Your task to perform on an android device: toggle notification dots Image 0: 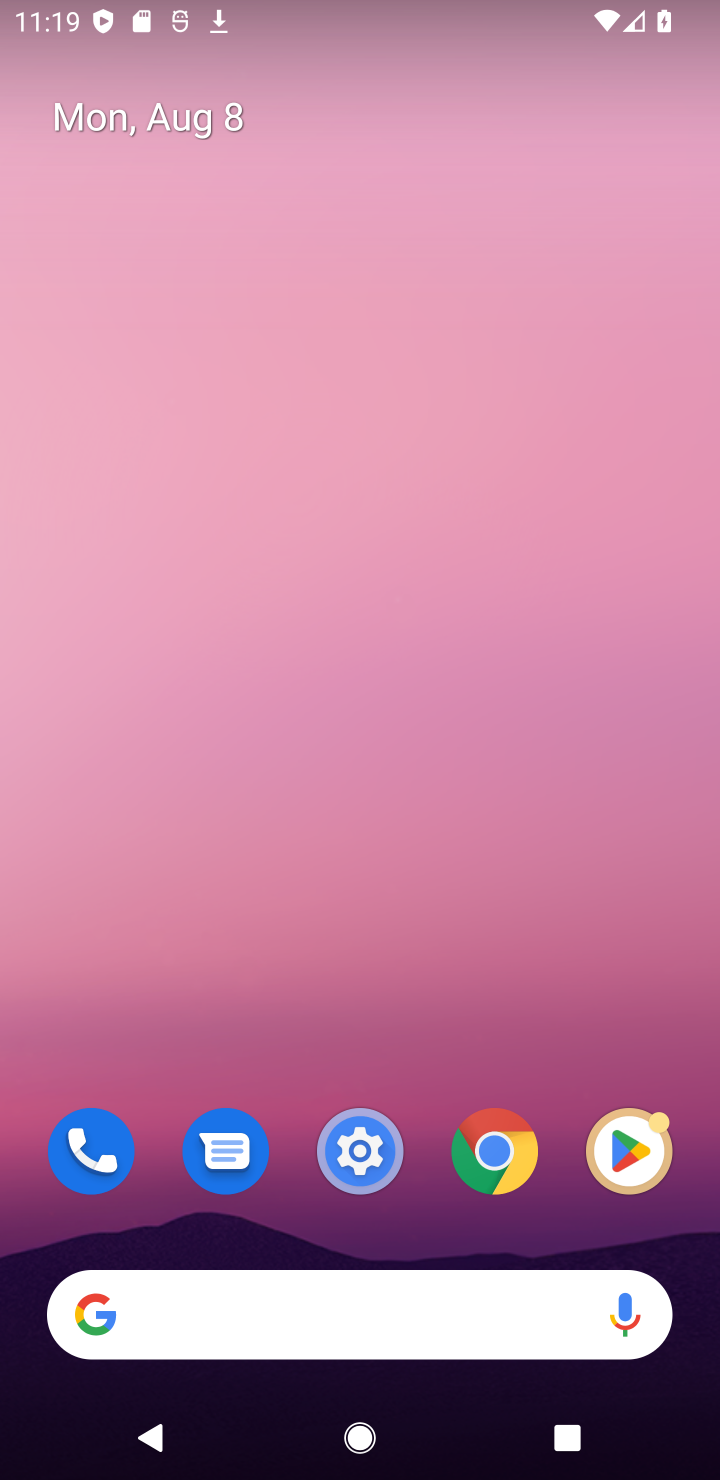
Step 0: click (379, 306)
Your task to perform on an android device: toggle notification dots Image 1: 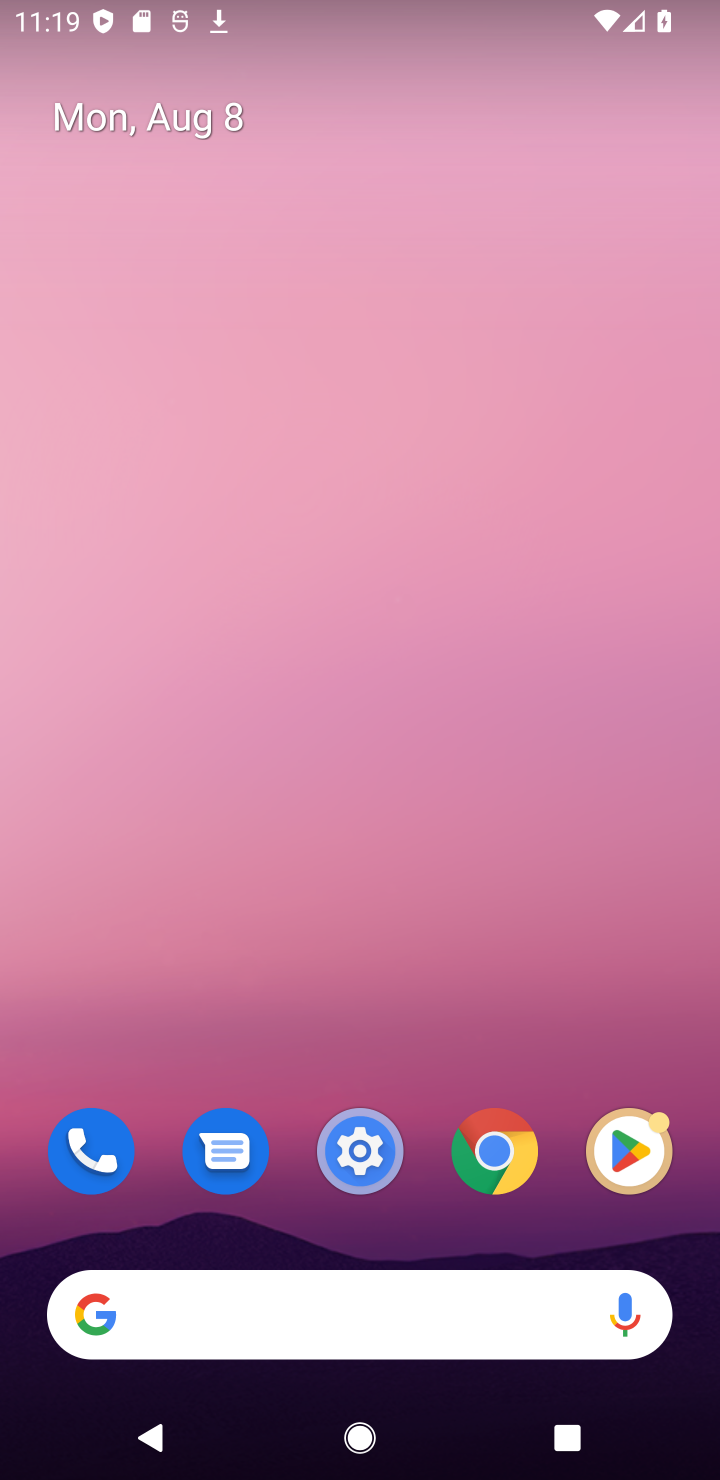
Step 1: click (370, 1166)
Your task to perform on an android device: toggle notification dots Image 2: 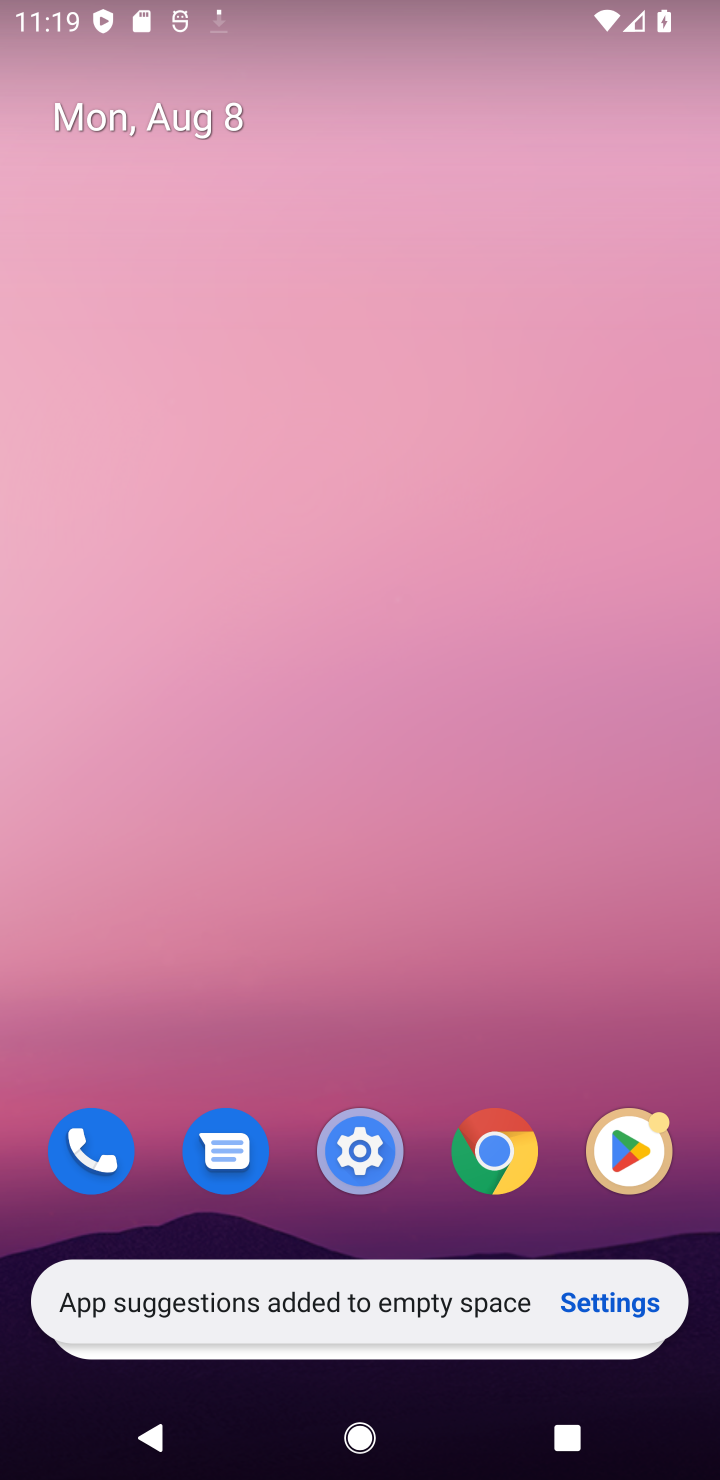
Step 2: click (370, 1166)
Your task to perform on an android device: toggle notification dots Image 3: 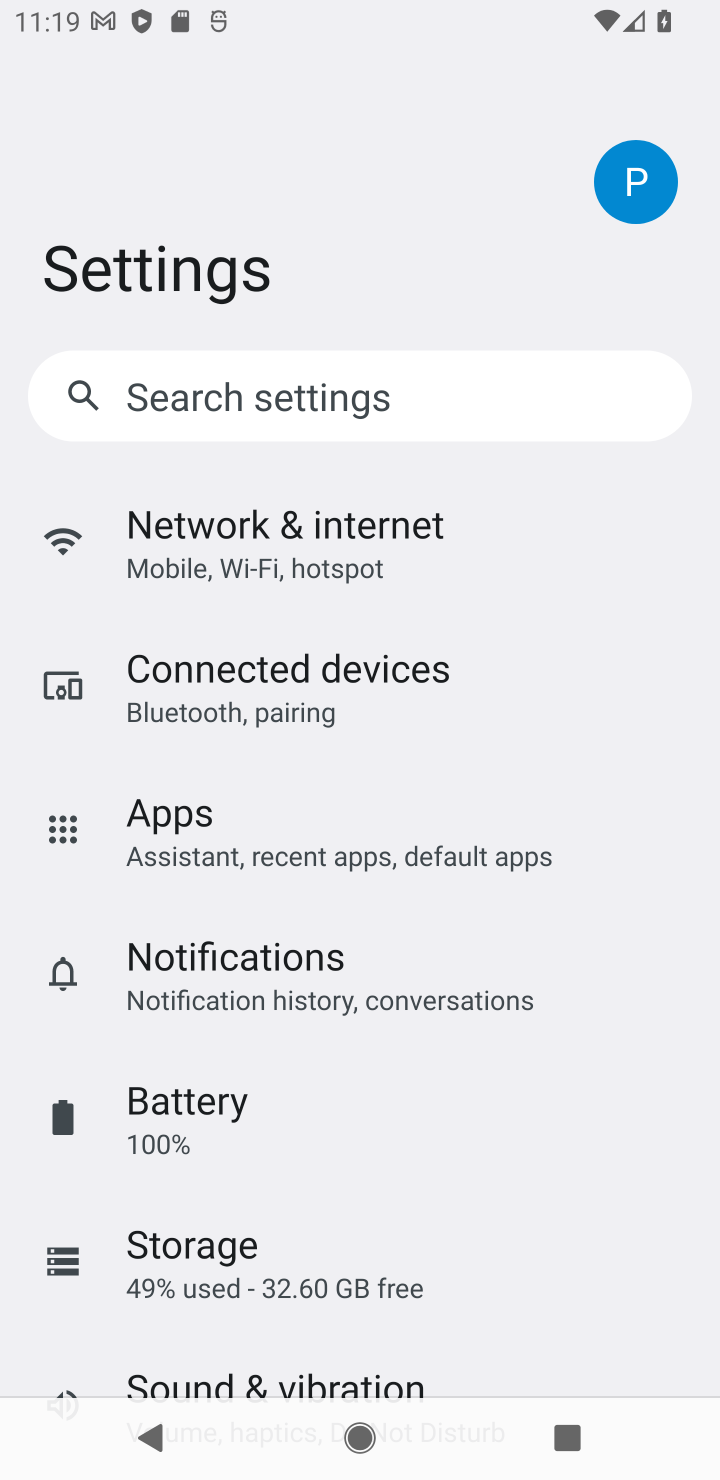
Step 3: click (249, 1001)
Your task to perform on an android device: toggle notification dots Image 4: 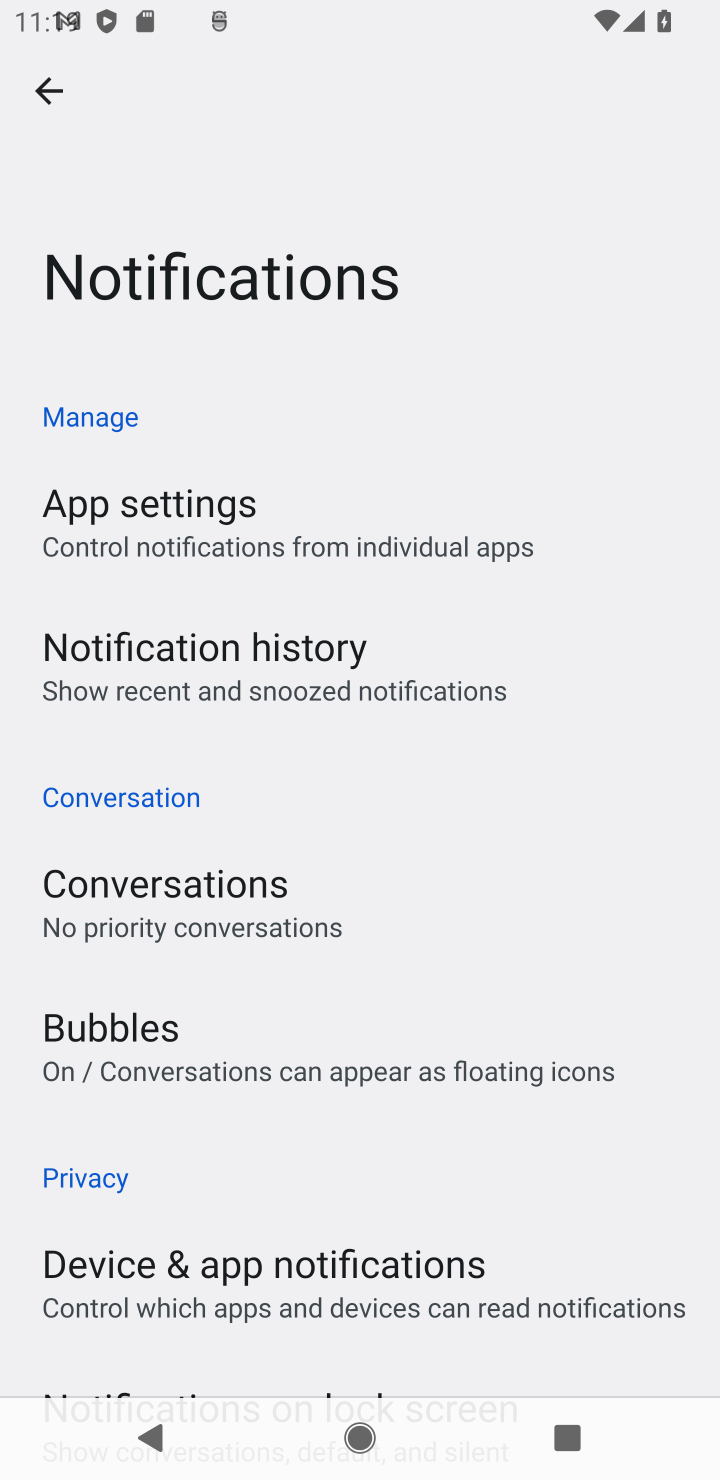
Step 4: drag from (262, 1276) to (276, 517)
Your task to perform on an android device: toggle notification dots Image 5: 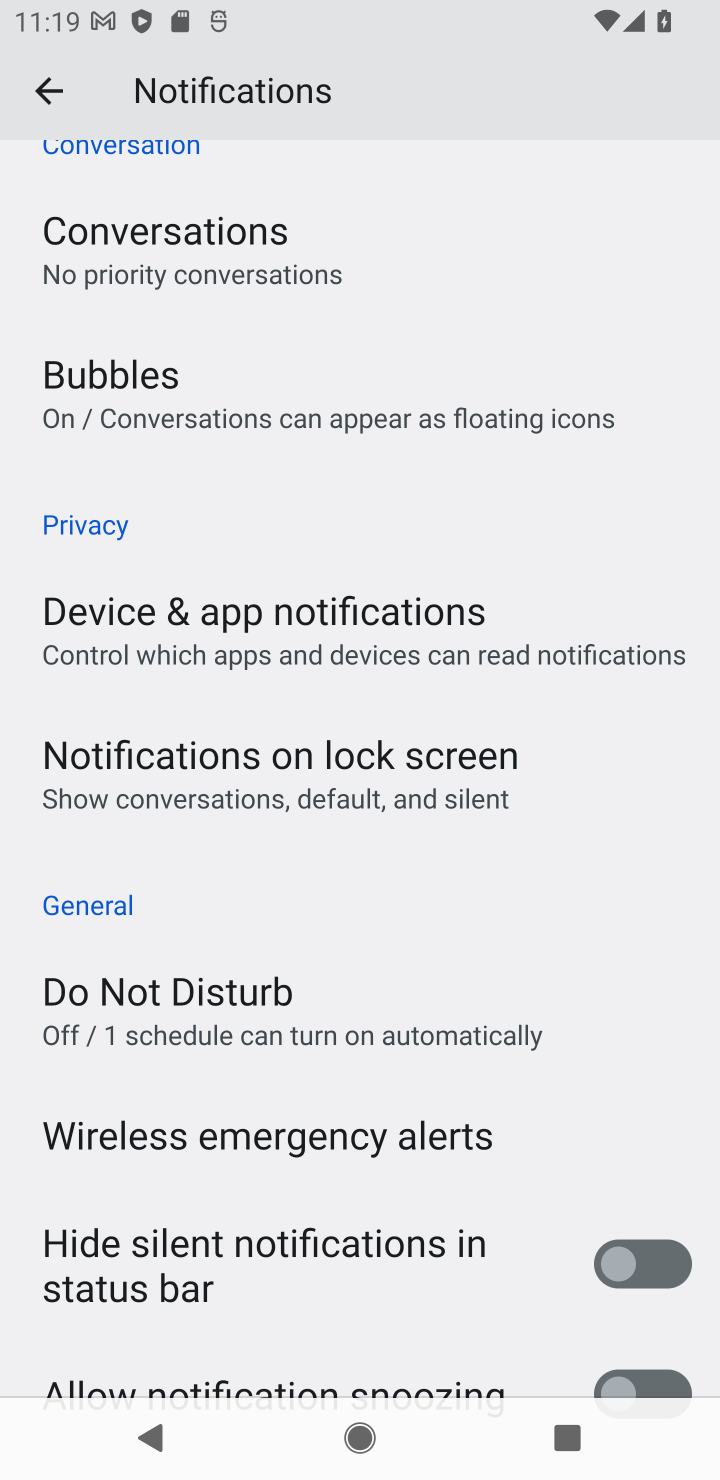
Step 5: drag from (237, 1257) to (237, 643)
Your task to perform on an android device: toggle notification dots Image 6: 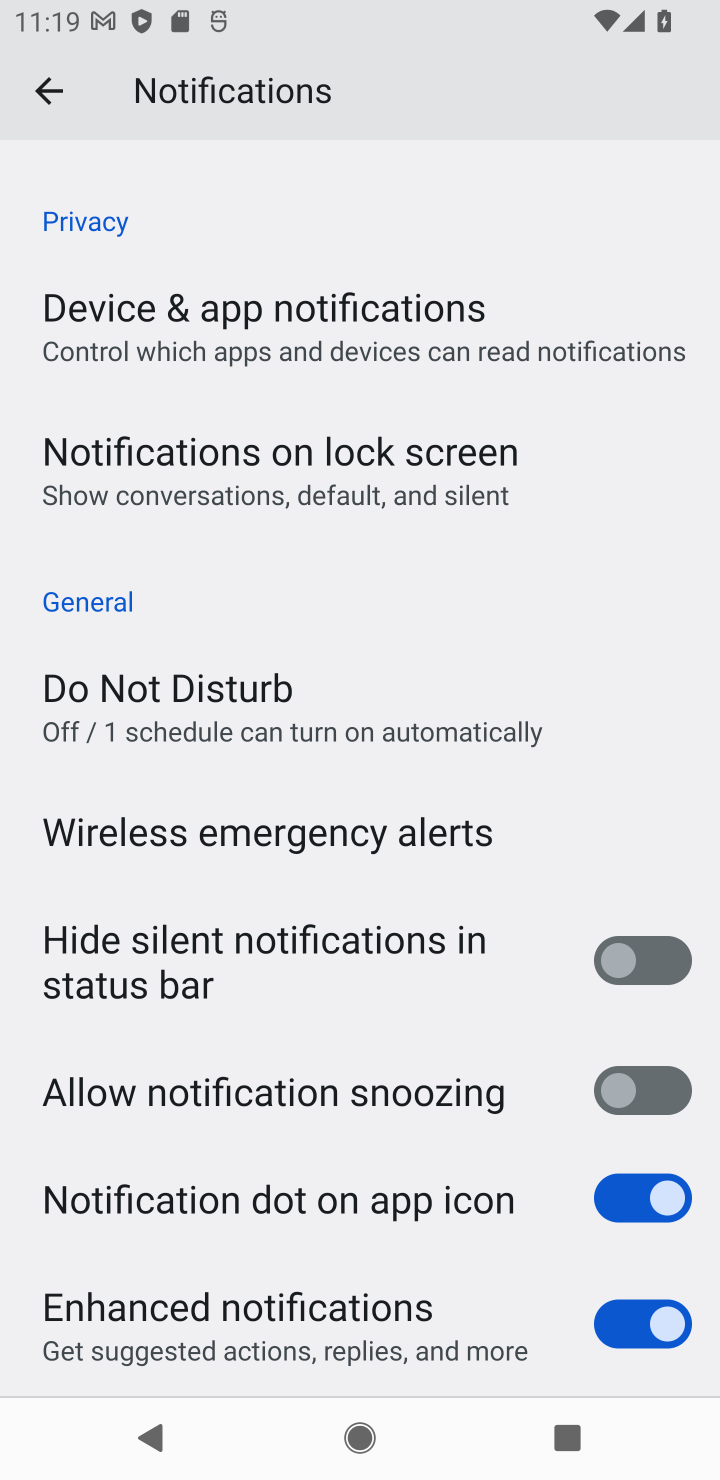
Step 6: click (641, 1204)
Your task to perform on an android device: toggle notification dots Image 7: 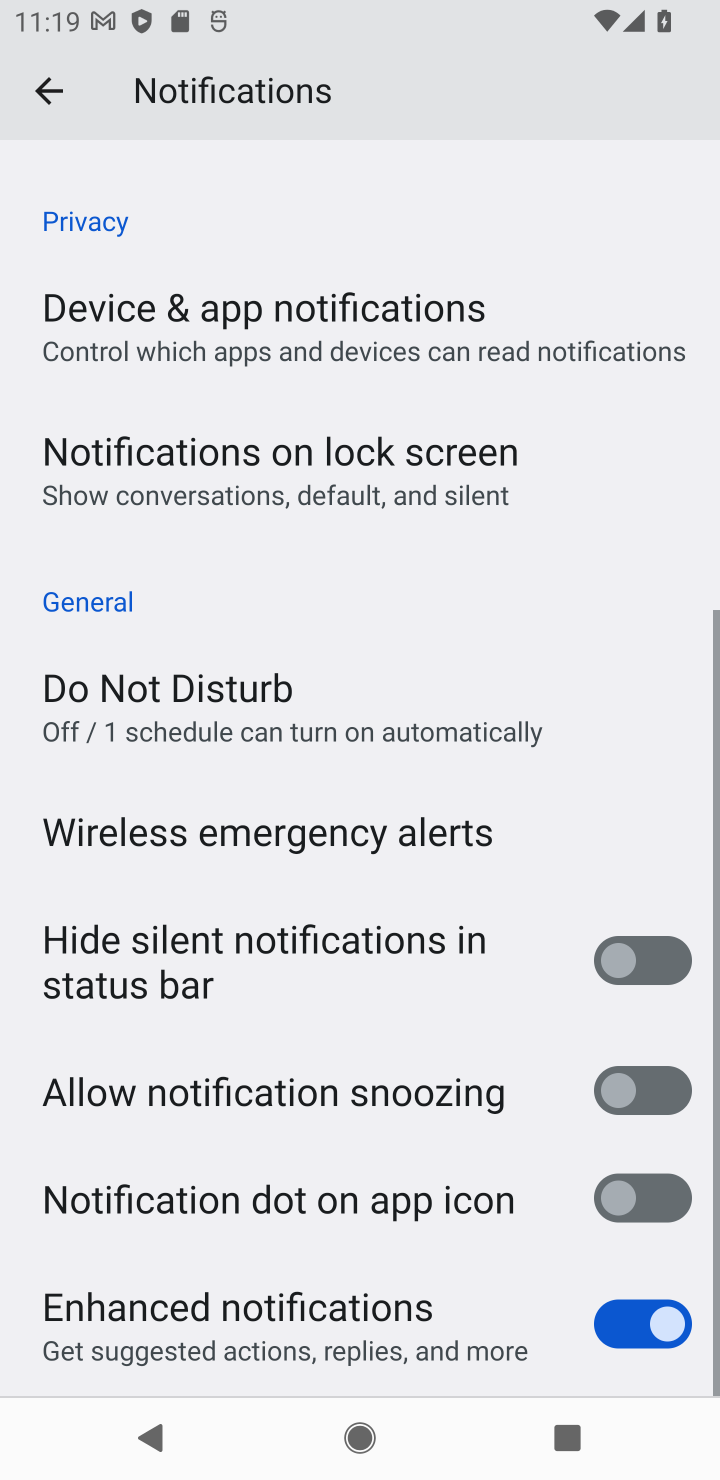
Step 7: task complete